Your task to perform on an android device: change timer sound Image 0: 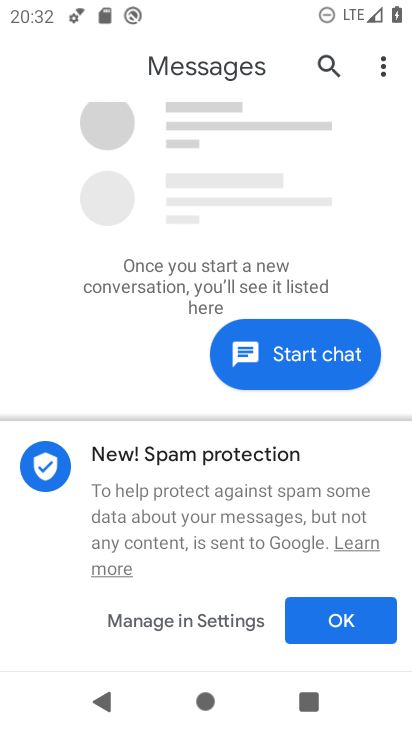
Step 0: press home button
Your task to perform on an android device: change timer sound Image 1: 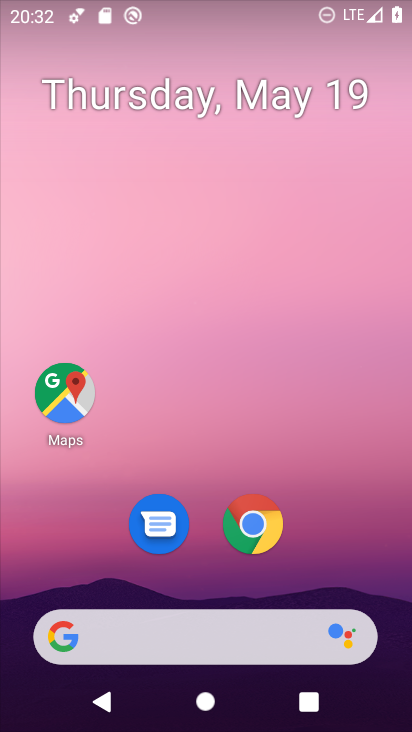
Step 1: drag from (323, 495) to (341, 74)
Your task to perform on an android device: change timer sound Image 2: 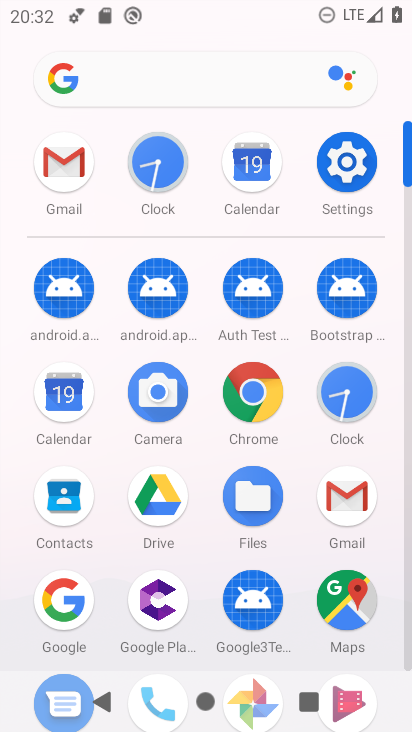
Step 2: click (342, 384)
Your task to perform on an android device: change timer sound Image 3: 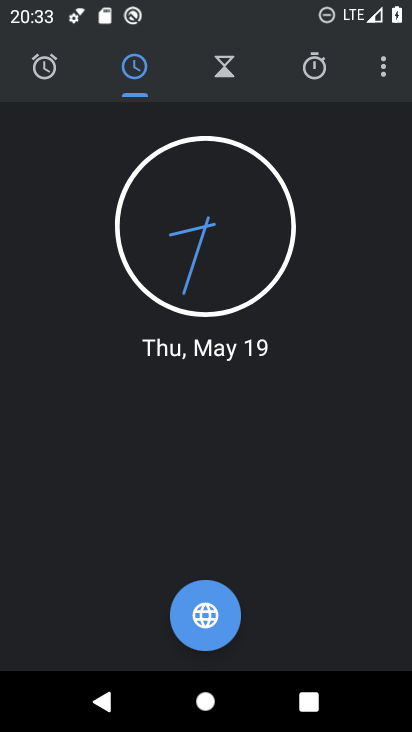
Step 3: click (380, 65)
Your task to perform on an android device: change timer sound Image 4: 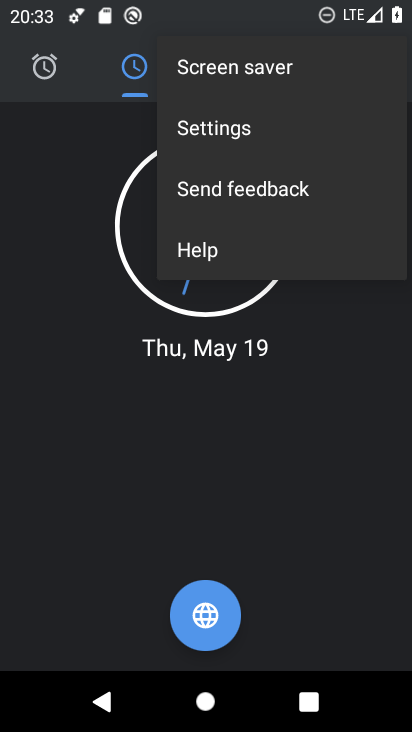
Step 4: click (276, 136)
Your task to perform on an android device: change timer sound Image 5: 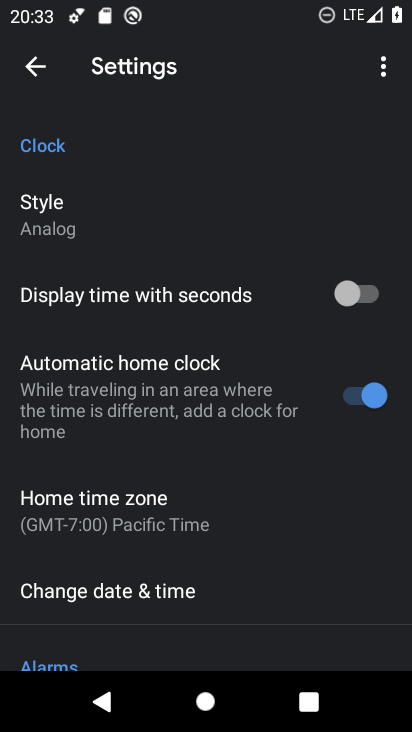
Step 5: drag from (230, 481) to (270, 133)
Your task to perform on an android device: change timer sound Image 6: 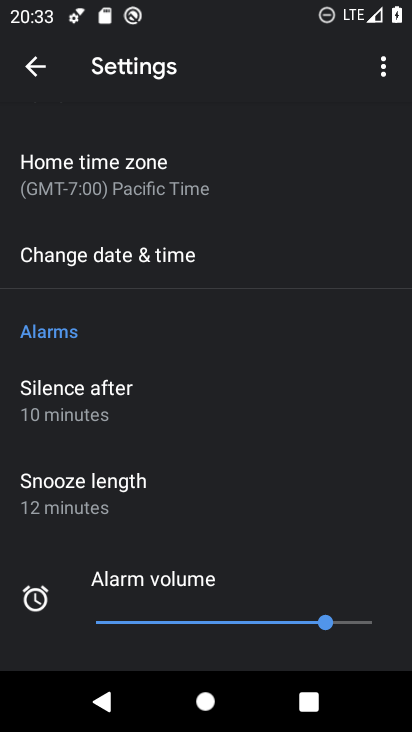
Step 6: drag from (234, 424) to (253, 120)
Your task to perform on an android device: change timer sound Image 7: 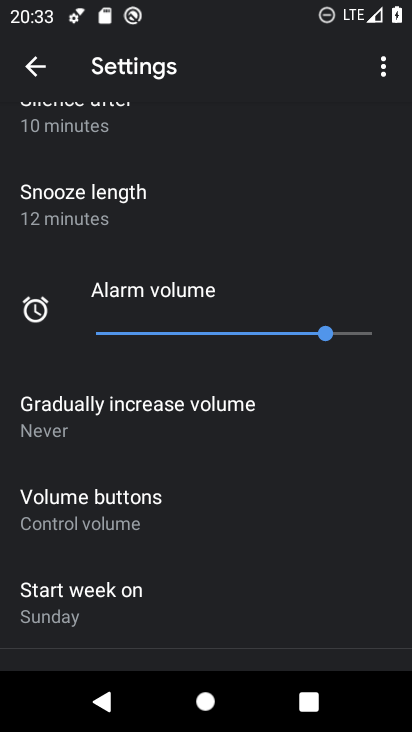
Step 7: drag from (200, 467) to (226, 109)
Your task to perform on an android device: change timer sound Image 8: 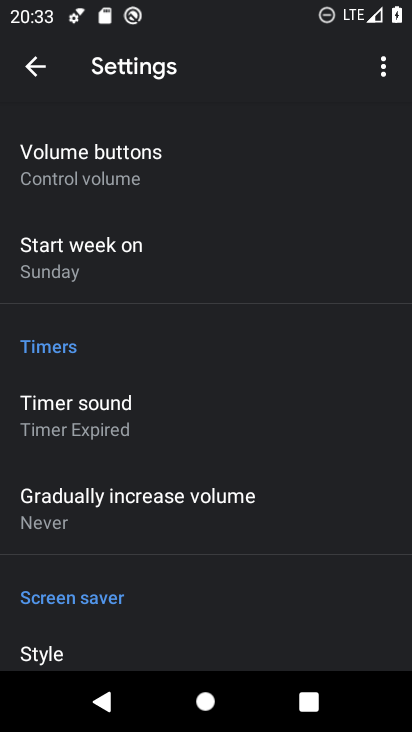
Step 8: click (155, 424)
Your task to perform on an android device: change timer sound Image 9: 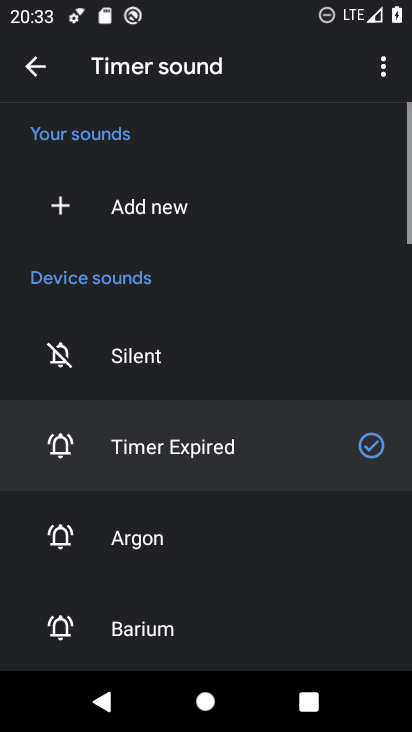
Step 9: click (164, 539)
Your task to perform on an android device: change timer sound Image 10: 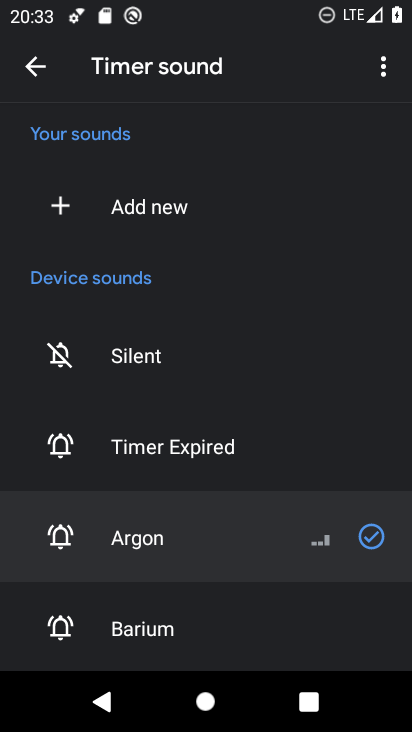
Step 10: task complete